Your task to perform on an android device: Open settings Image 0: 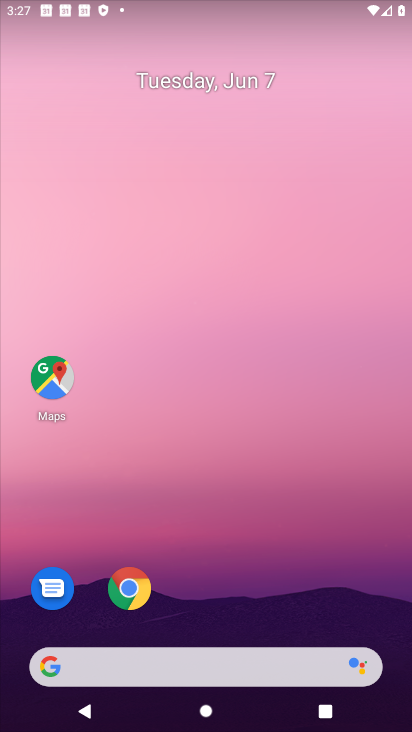
Step 0: task complete